Your task to perform on an android device: Go to network settings Image 0: 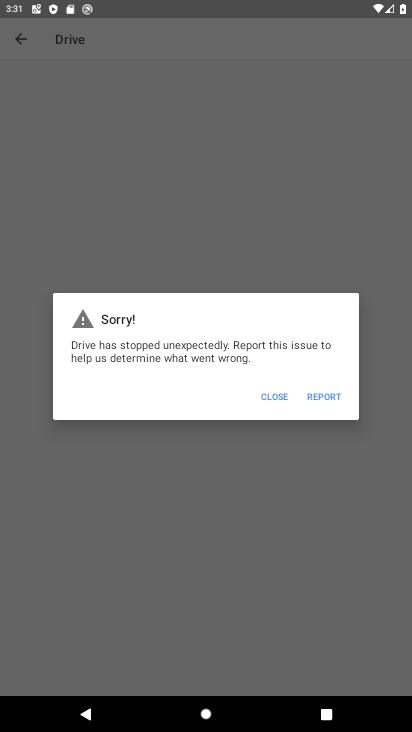
Step 0: drag from (188, 2) to (243, 372)
Your task to perform on an android device: Go to network settings Image 1: 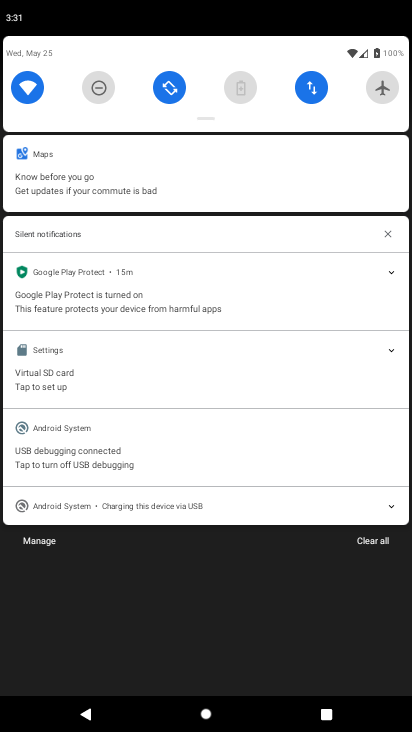
Step 1: click (313, 98)
Your task to perform on an android device: Go to network settings Image 2: 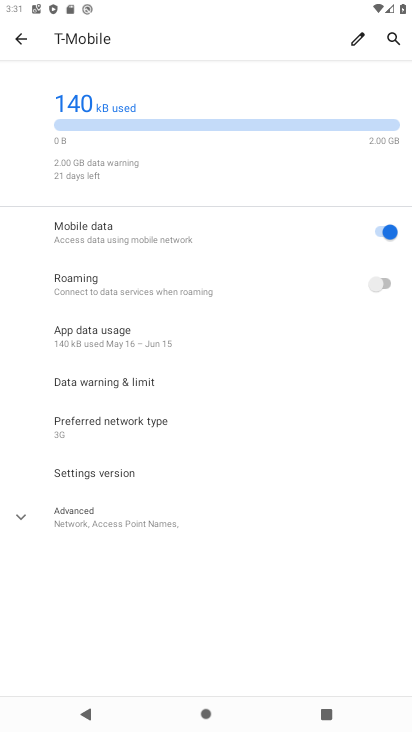
Step 2: task complete